Your task to perform on an android device: change notification settings in the gmail app Image 0: 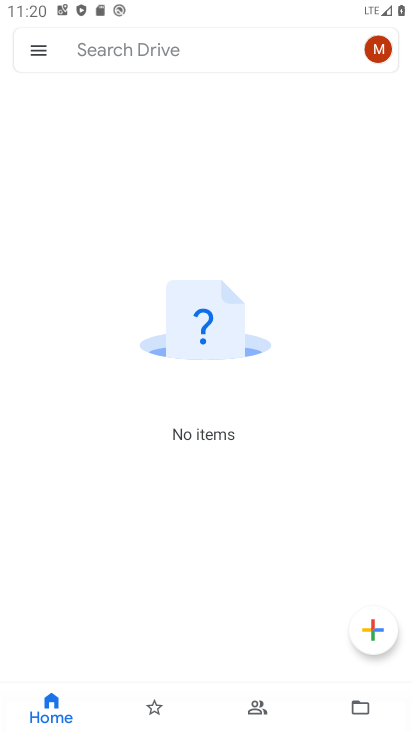
Step 0: press home button
Your task to perform on an android device: change notification settings in the gmail app Image 1: 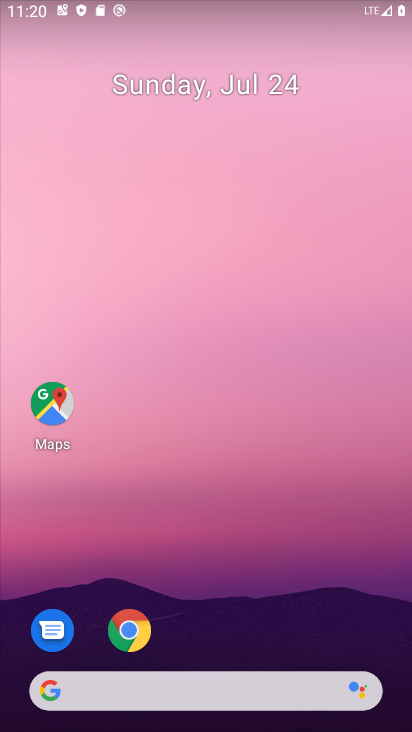
Step 1: drag from (248, 622) to (184, 73)
Your task to perform on an android device: change notification settings in the gmail app Image 2: 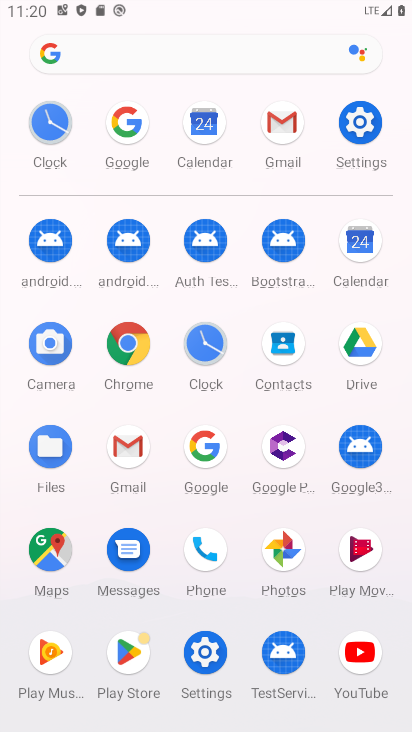
Step 2: click (265, 155)
Your task to perform on an android device: change notification settings in the gmail app Image 3: 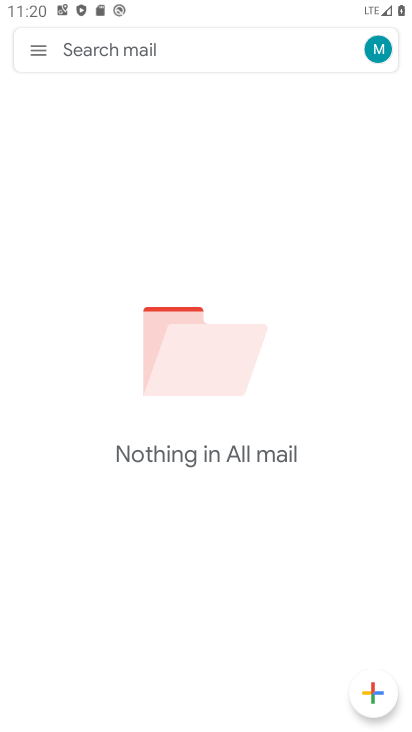
Step 3: click (45, 53)
Your task to perform on an android device: change notification settings in the gmail app Image 4: 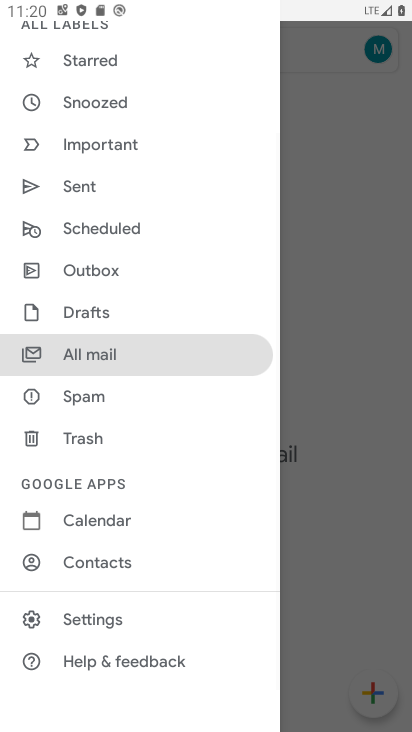
Step 4: click (51, 616)
Your task to perform on an android device: change notification settings in the gmail app Image 5: 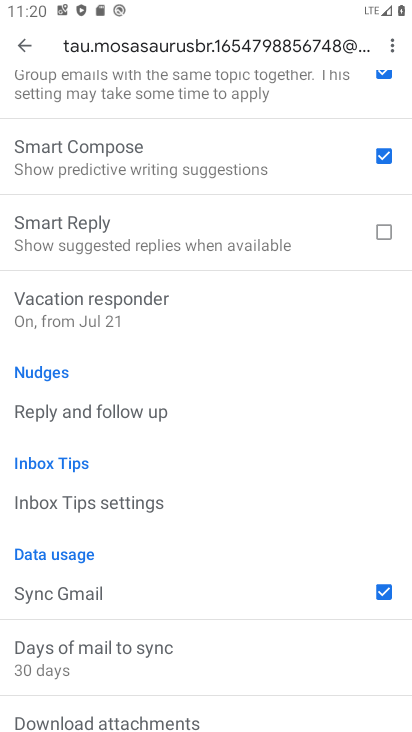
Step 5: drag from (174, 236) to (166, 609)
Your task to perform on an android device: change notification settings in the gmail app Image 6: 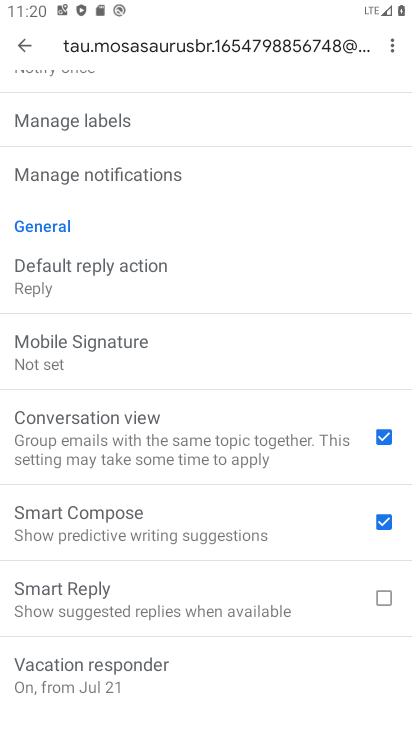
Step 6: click (164, 195)
Your task to perform on an android device: change notification settings in the gmail app Image 7: 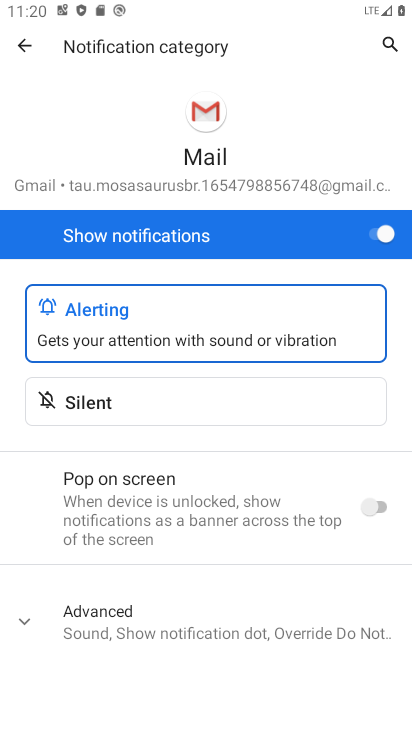
Step 7: click (358, 222)
Your task to perform on an android device: change notification settings in the gmail app Image 8: 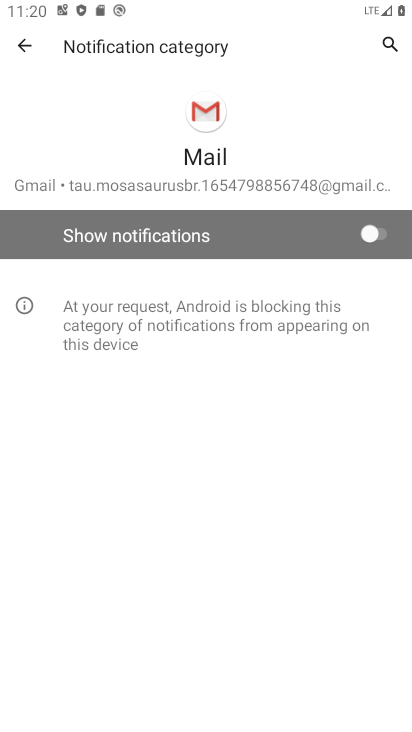
Step 8: task complete